Your task to perform on an android device: turn off notifications in google photos Image 0: 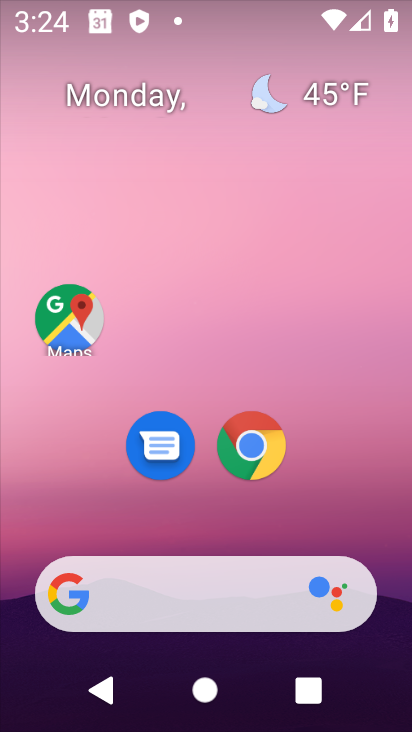
Step 0: drag from (275, 529) to (345, 45)
Your task to perform on an android device: turn off notifications in google photos Image 1: 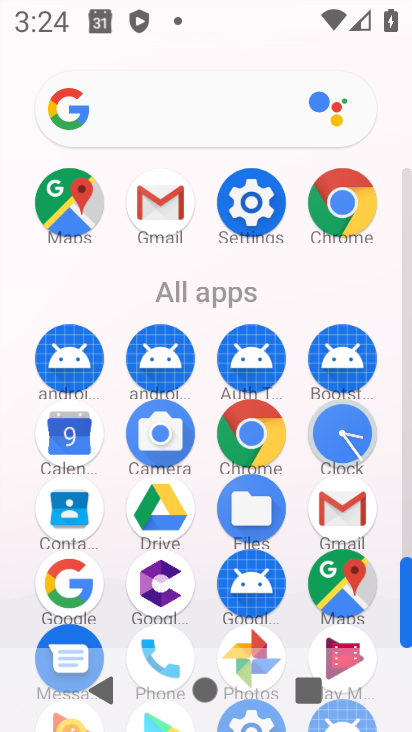
Step 1: drag from (288, 599) to (341, 353)
Your task to perform on an android device: turn off notifications in google photos Image 2: 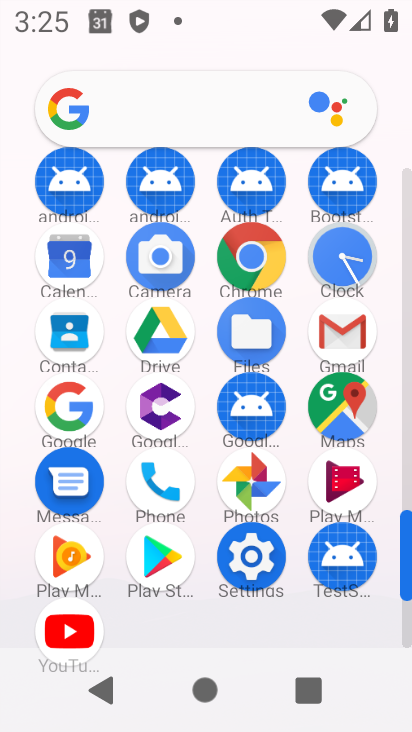
Step 2: click (254, 489)
Your task to perform on an android device: turn off notifications in google photos Image 3: 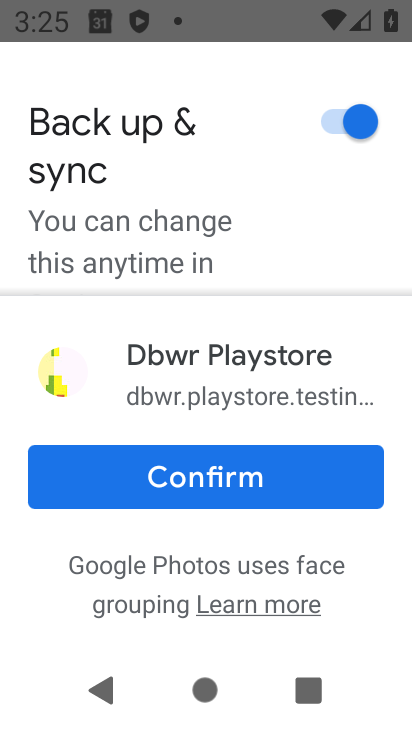
Step 3: press home button
Your task to perform on an android device: turn off notifications in google photos Image 4: 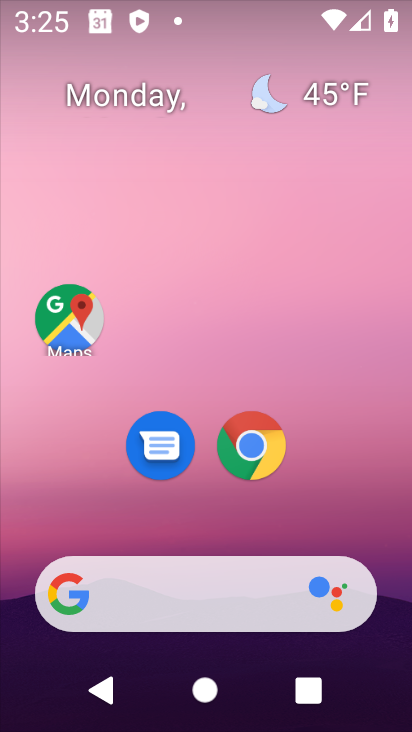
Step 4: drag from (327, 525) to (238, 43)
Your task to perform on an android device: turn off notifications in google photos Image 5: 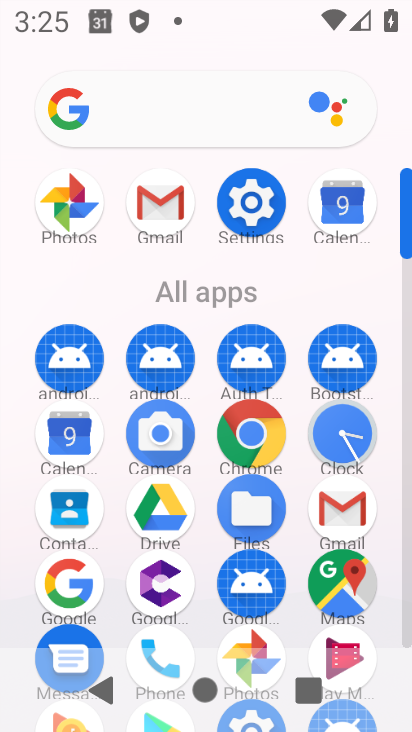
Step 5: drag from (255, 616) to (230, 332)
Your task to perform on an android device: turn off notifications in google photos Image 6: 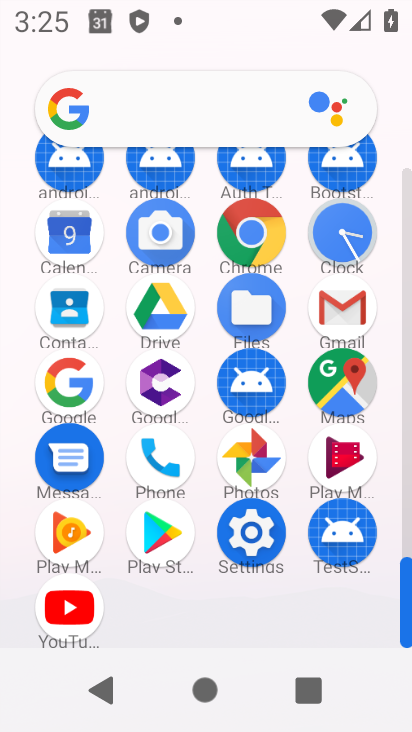
Step 6: click (257, 455)
Your task to perform on an android device: turn off notifications in google photos Image 7: 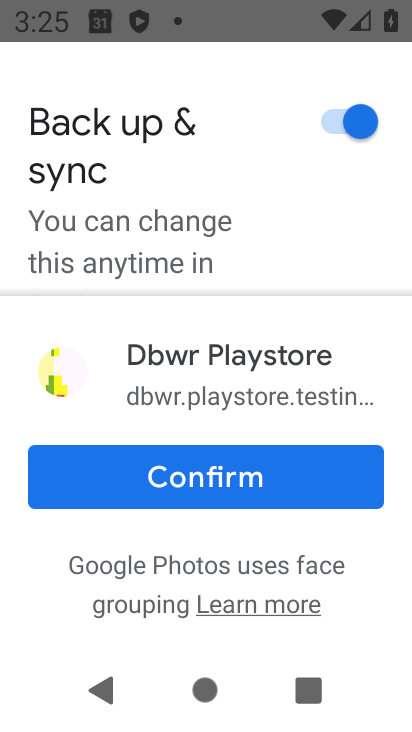
Step 7: click (242, 482)
Your task to perform on an android device: turn off notifications in google photos Image 8: 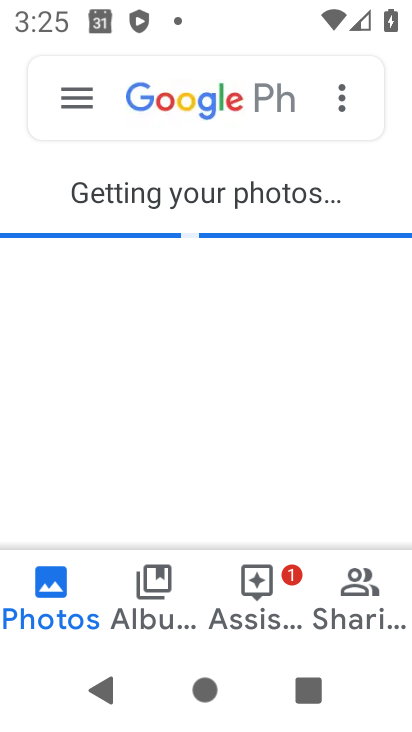
Step 8: click (62, 91)
Your task to perform on an android device: turn off notifications in google photos Image 9: 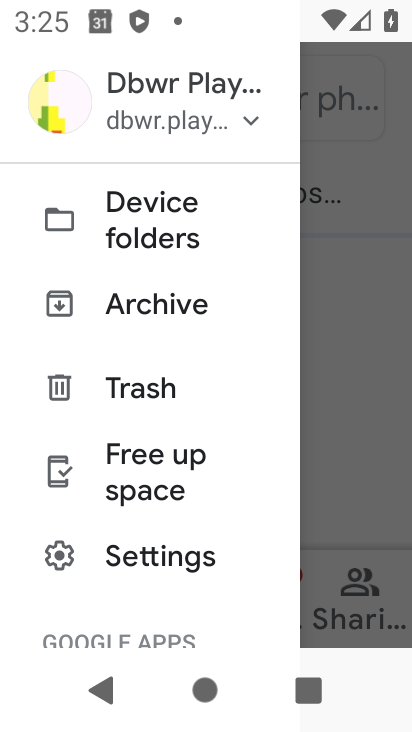
Step 9: click (161, 556)
Your task to perform on an android device: turn off notifications in google photos Image 10: 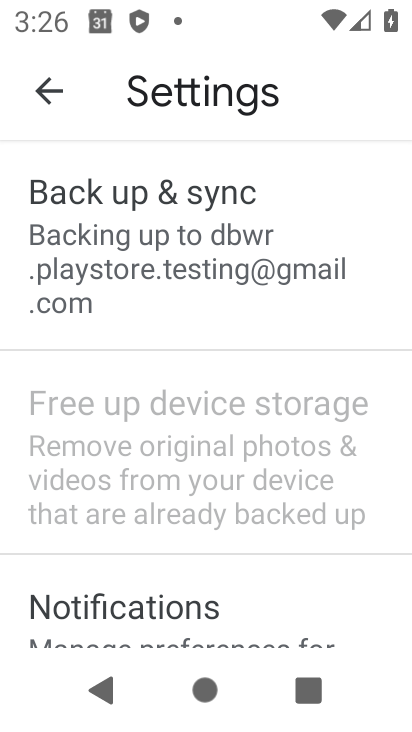
Step 10: drag from (155, 565) to (165, 212)
Your task to perform on an android device: turn off notifications in google photos Image 11: 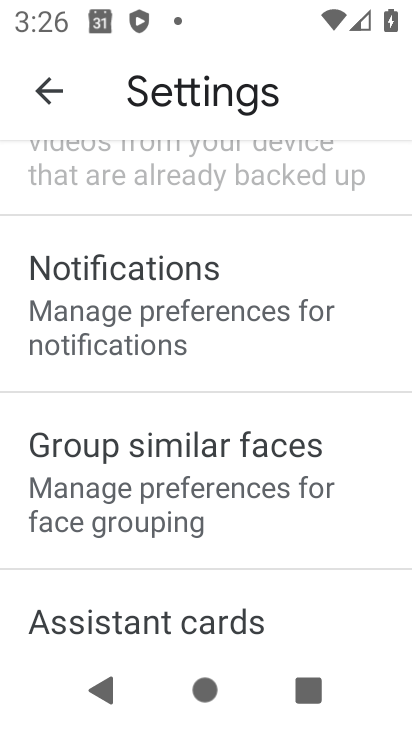
Step 11: click (186, 324)
Your task to perform on an android device: turn off notifications in google photos Image 12: 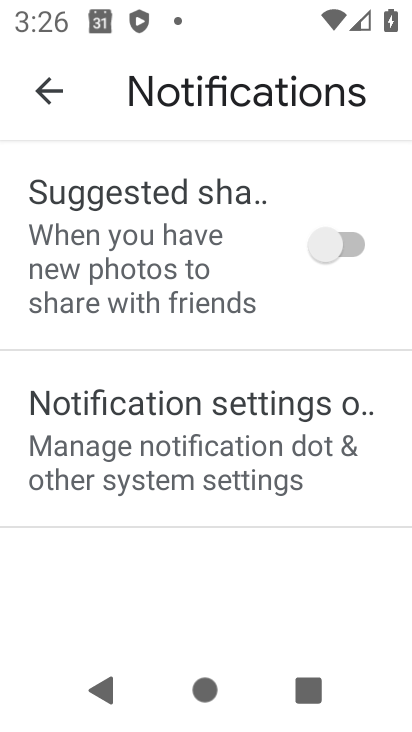
Step 12: click (181, 471)
Your task to perform on an android device: turn off notifications in google photos Image 13: 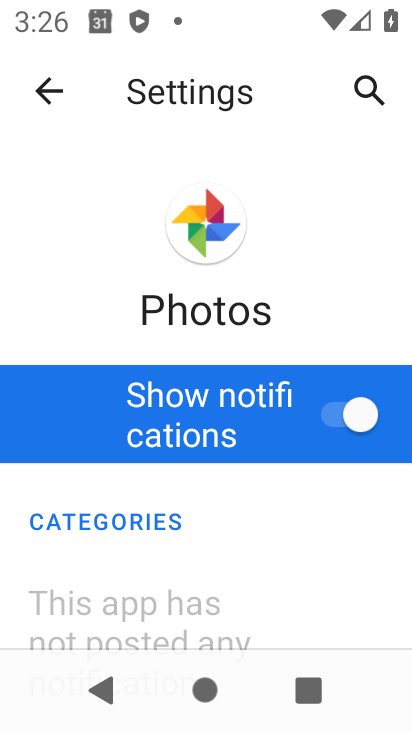
Step 13: click (322, 427)
Your task to perform on an android device: turn off notifications in google photos Image 14: 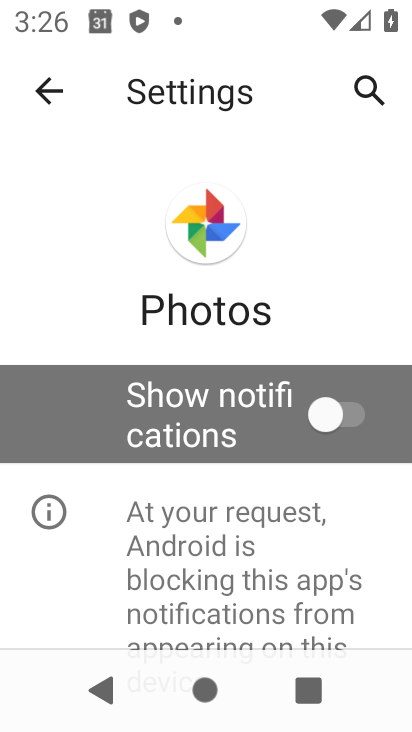
Step 14: task complete